Your task to perform on an android device: install app "PlayWell" Image 0: 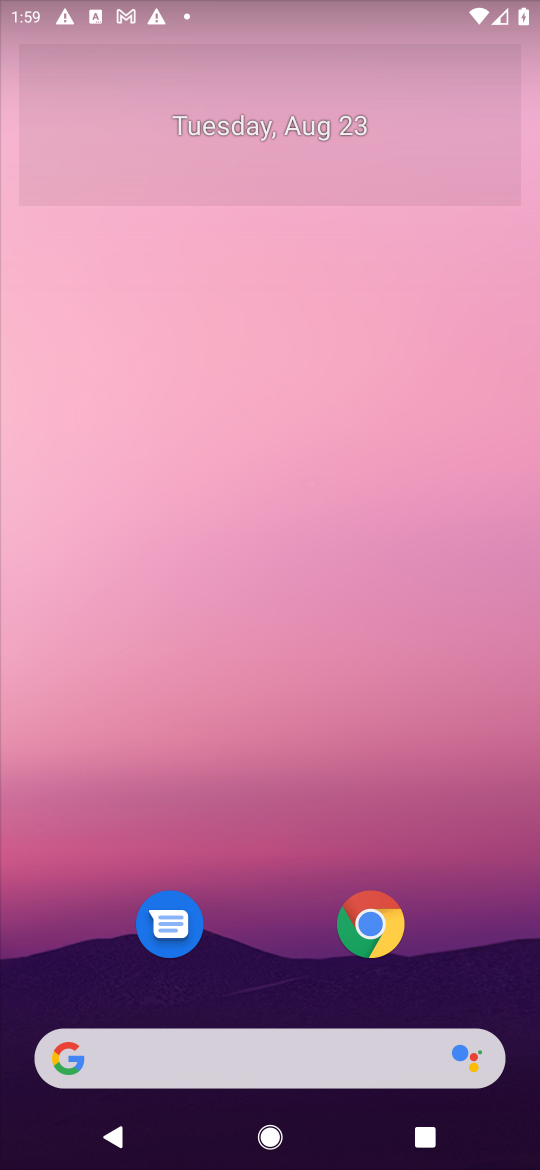
Step 0: press home button
Your task to perform on an android device: install app "PlayWell" Image 1: 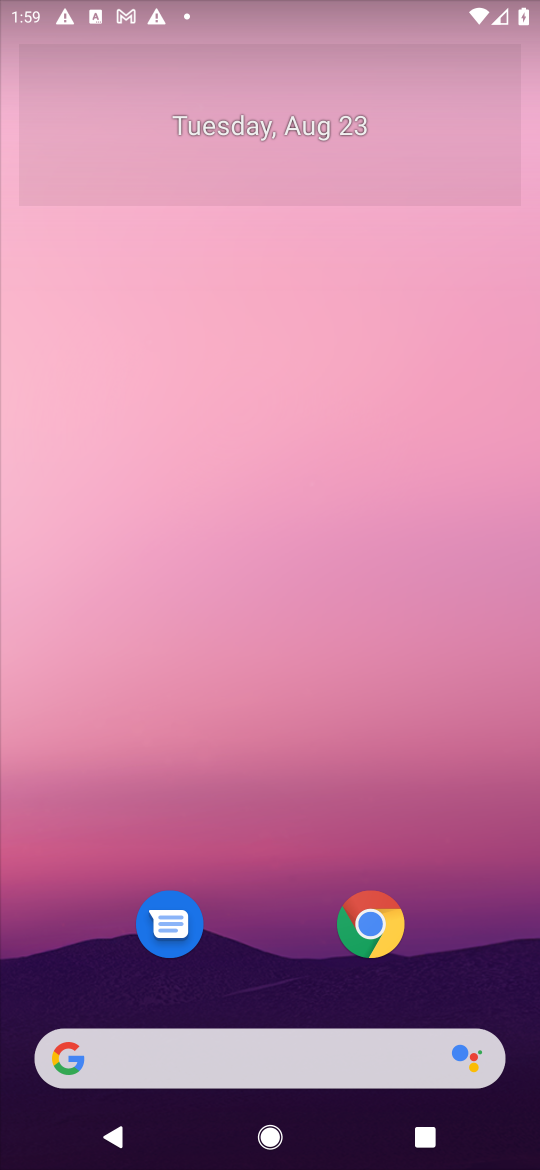
Step 1: drag from (463, 984) to (455, 218)
Your task to perform on an android device: install app "PlayWell" Image 2: 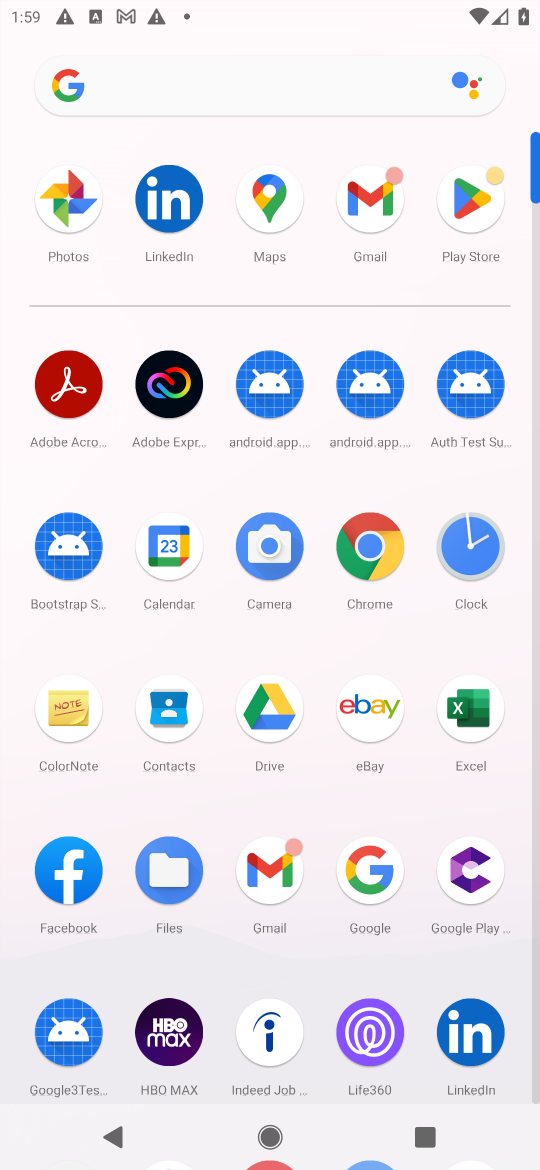
Step 2: click (474, 195)
Your task to perform on an android device: install app "PlayWell" Image 3: 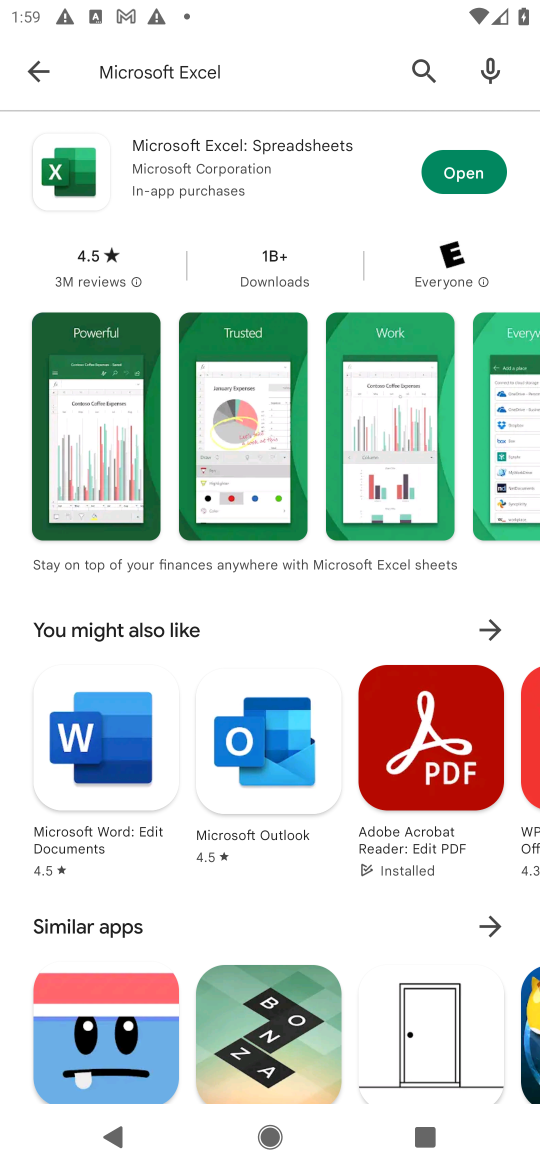
Step 3: press back button
Your task to perform on an android device: install app "PlayWell" Image 4: 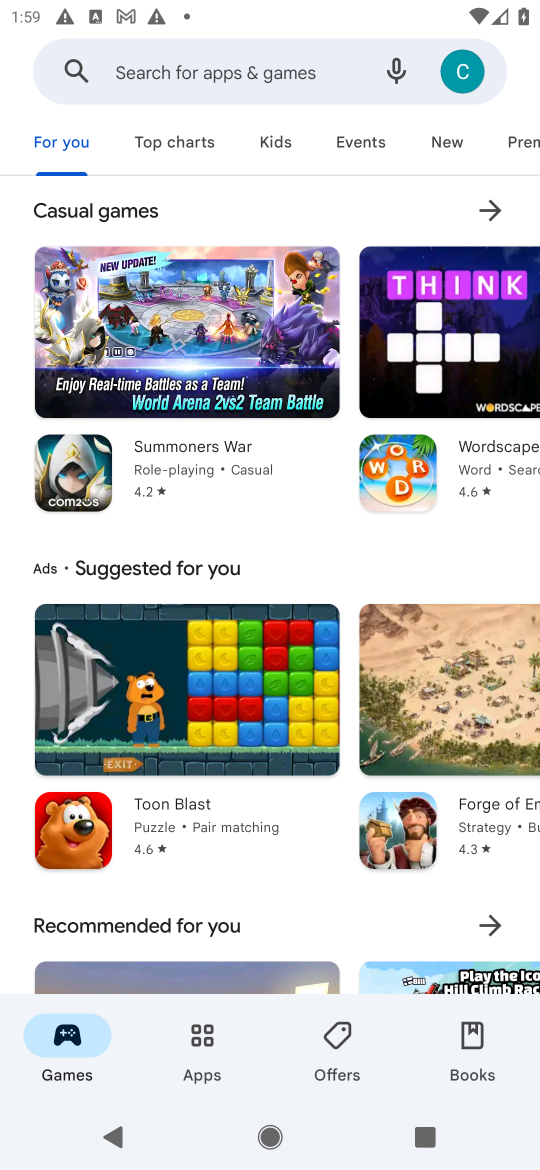
Step 4: click (226, 73)
Your task to perform on an android device: install app "PlayWell" Image 5: 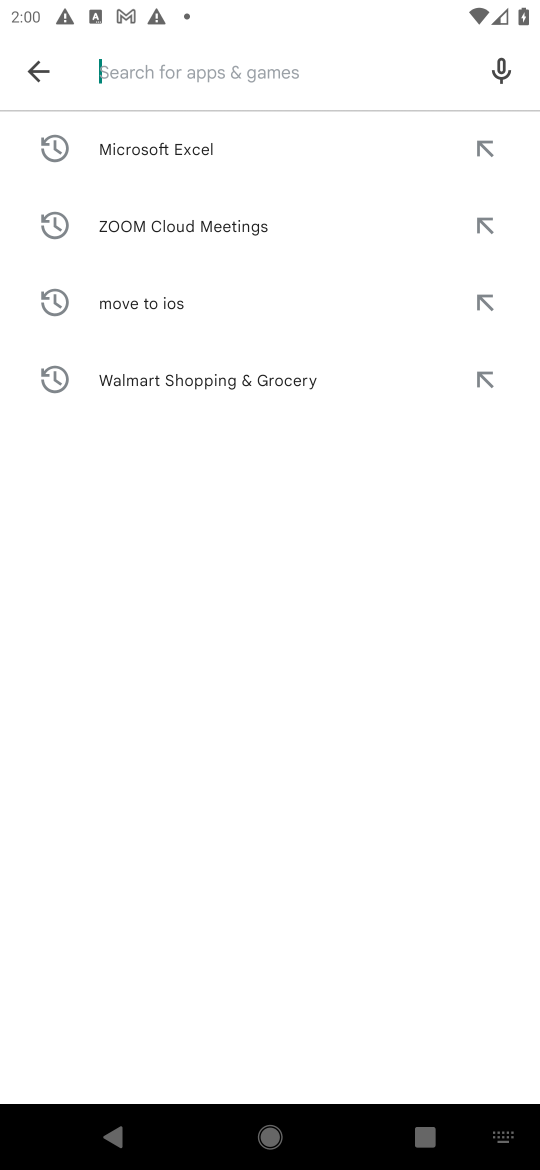
Step 5: press enter
Your task to perform on an android device: install app "PlayWell" Image 6: 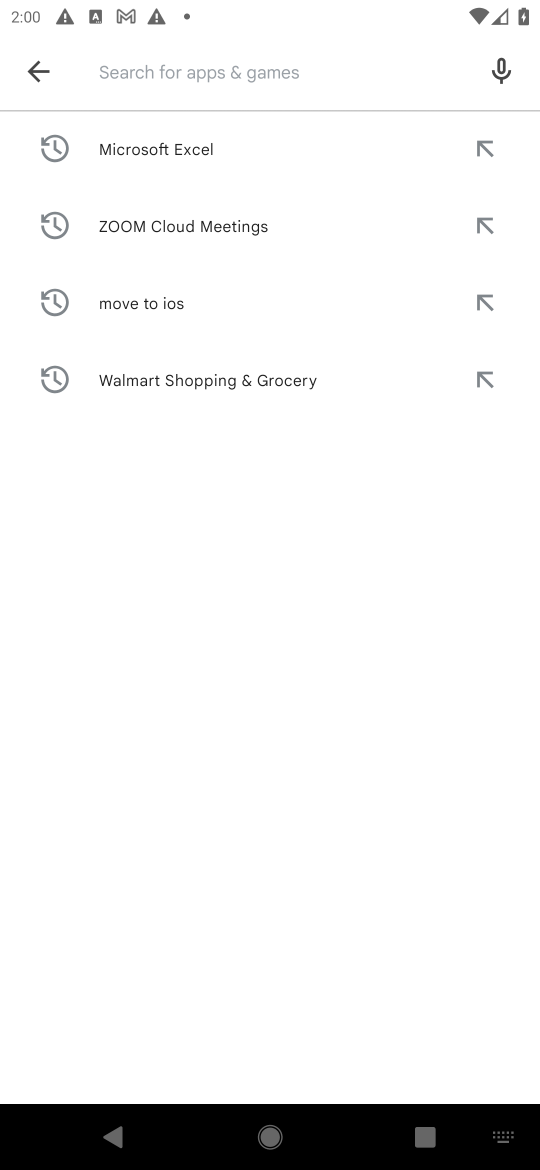
Step 6: type "play well"
Your task to perform on an android device: install app "PlayWell" Image 7: 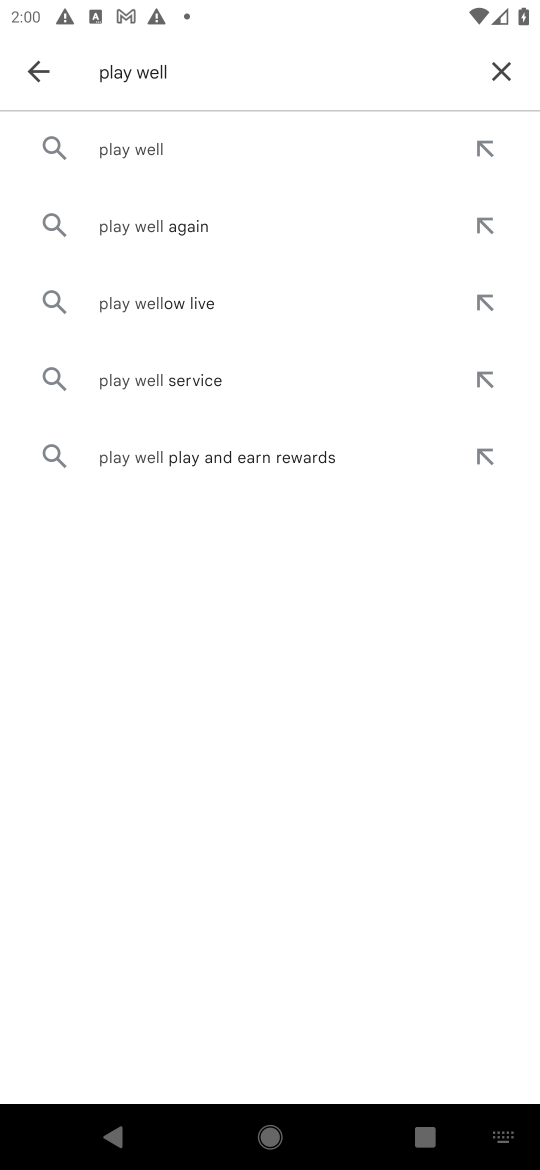
Step 7: click (159, 144)
Your task to perform on an android device: install app "PlayWell" Image 8: 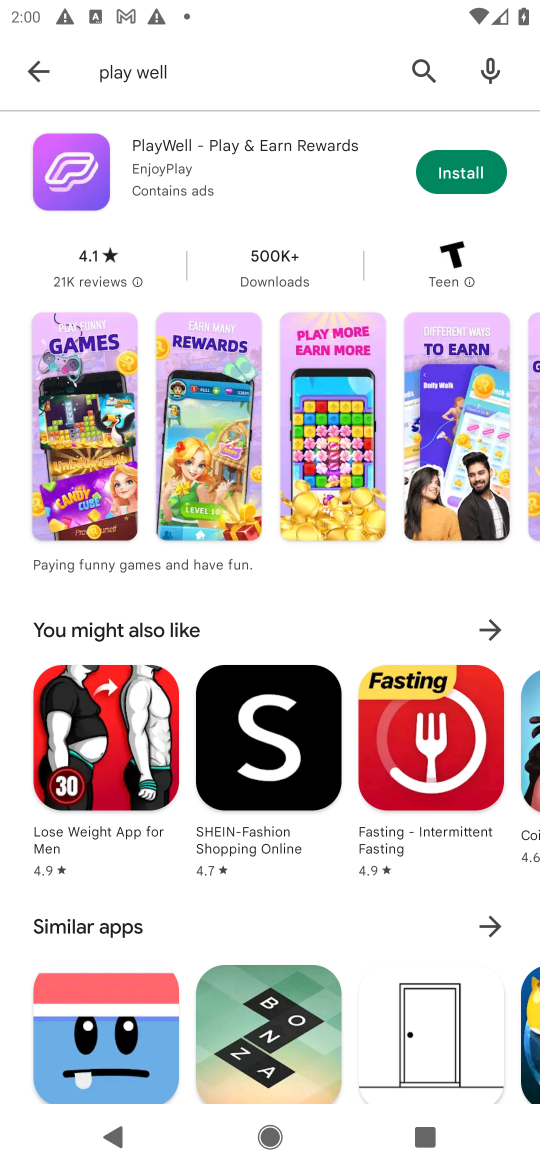
Step 8: click (469, 179)
Your task to perform on an android device: install app "PlayWell" Image 9: 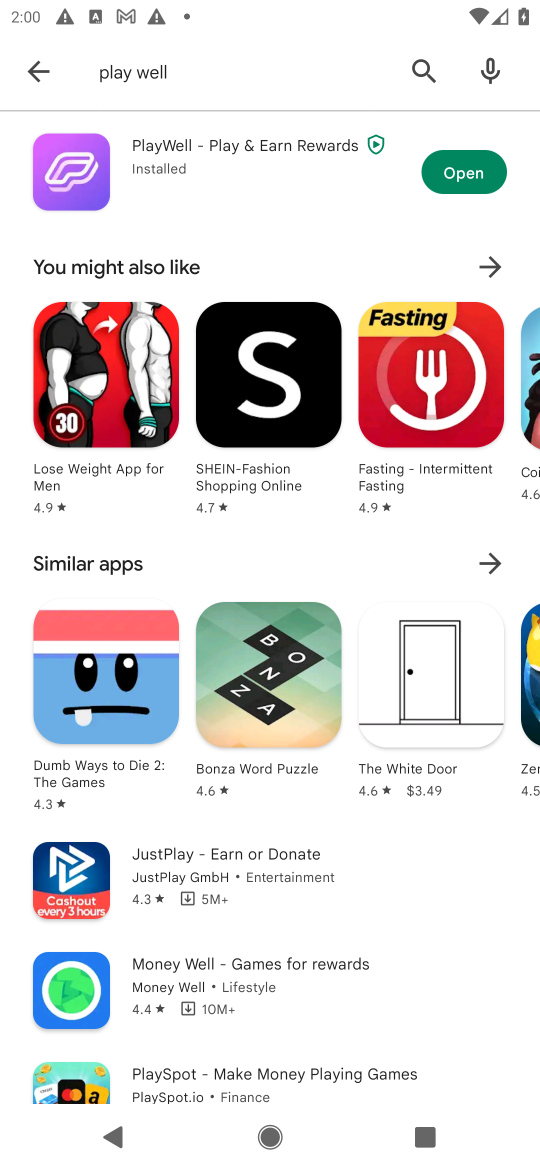
Step 9: task complete